Your task to perform on an android device: clear all cookies in the chrome app Image 0: 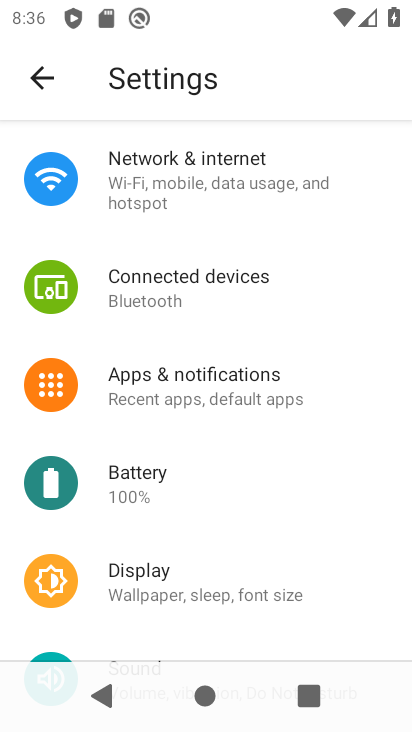
Step 0: press home button
Your task to perform on an android device: clear all cookies in the chrome app Image 1: 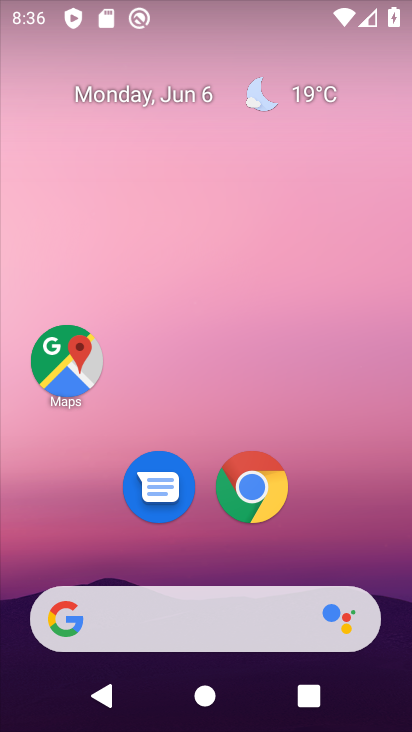
Step 1: click (257, 475)
Your task to perform on an android device: clear all cookies in the chrome app Image 2: 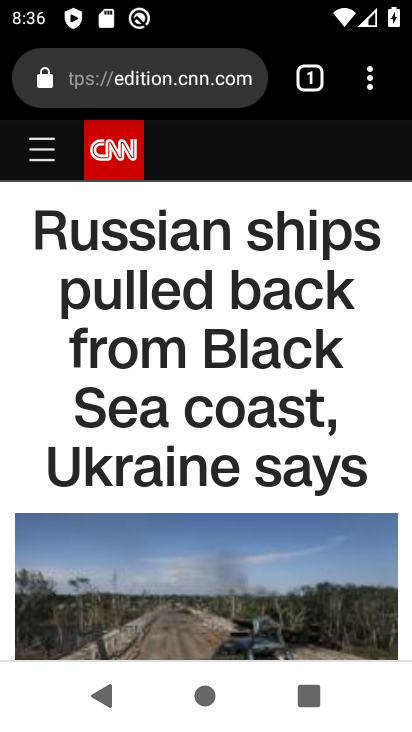
Step 2: click (370, 71)
Your task to perform on an android device: clear all cookies in the chrome app Image 3: 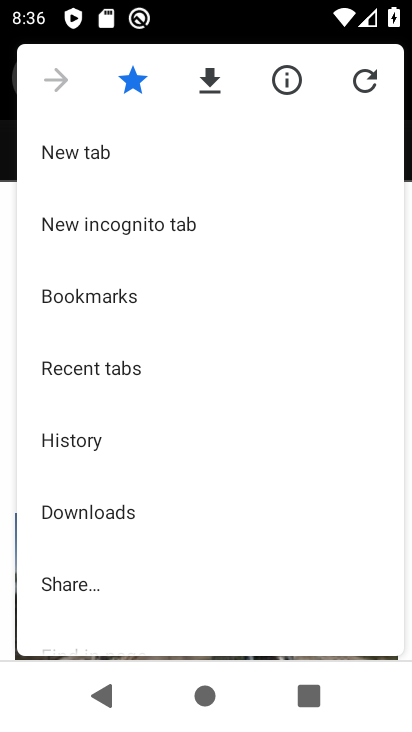
Step 3: click (112, 437)
Your task to perform on an android device: clear all cookies in the chrome app Image 4: 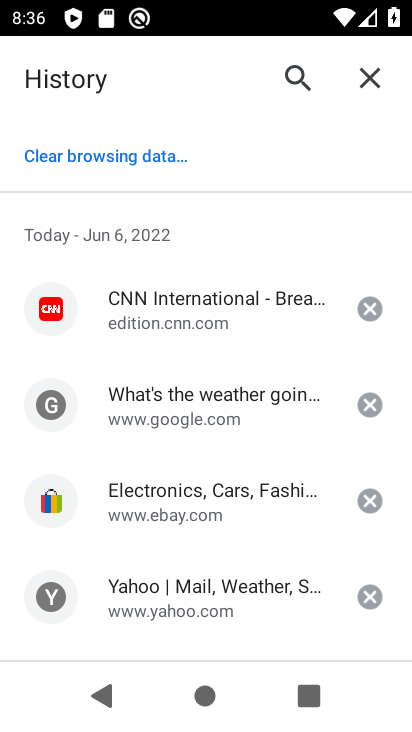
Step 4: click (153, 162)
Your task to perform on an android device: clear all cookies in the chrome app Image 5: 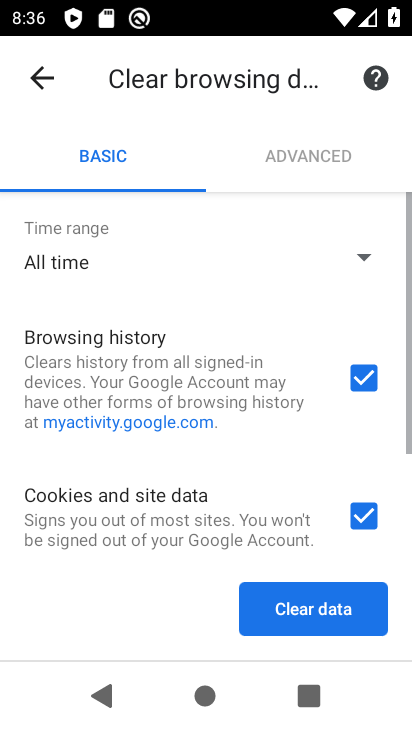
Step 5: click (313, 613)
Your task to perform on an android device: clear all cookies in the chrome app Image 6: 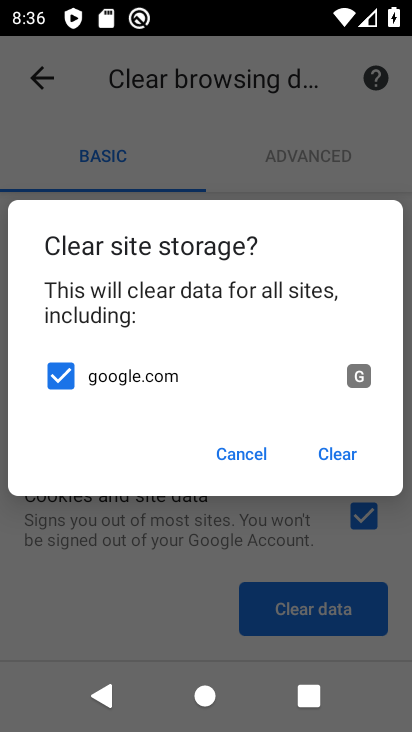
Step 6: click (335, 448)
Your task to perform on an android device: clear all cookies in the chrome app Image 7: 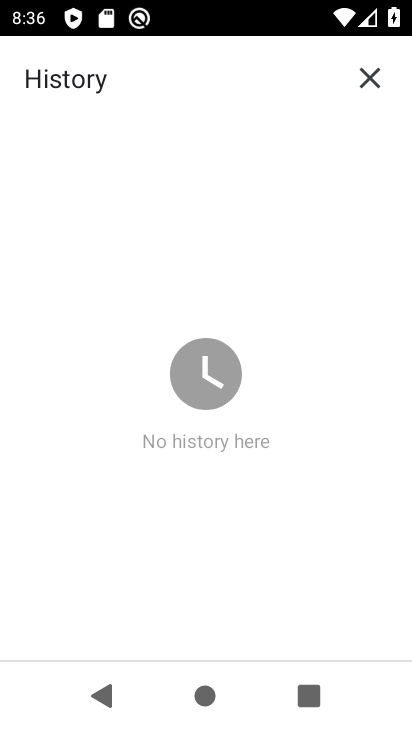
Step 7: task complete